Your task to perform on an android device: What is the recent news? Image 0: 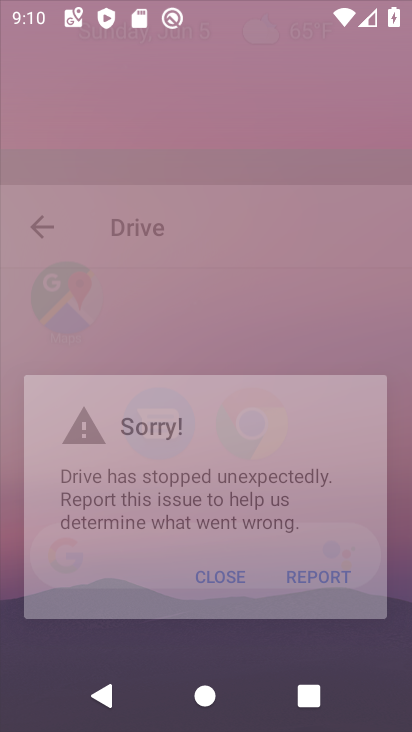
Step 0: click (211, 128)
Your task to perform on an android device: What is the recent news? Image 1: 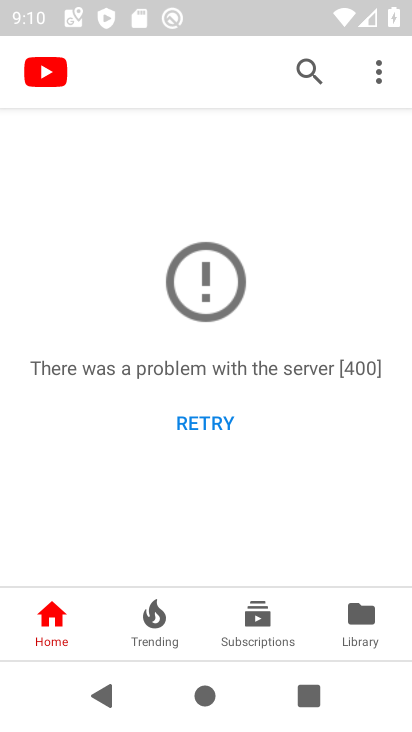
Step 1: task complete